Your task to perform on an android device: turn on showing notifications on the lock screen Image 0: 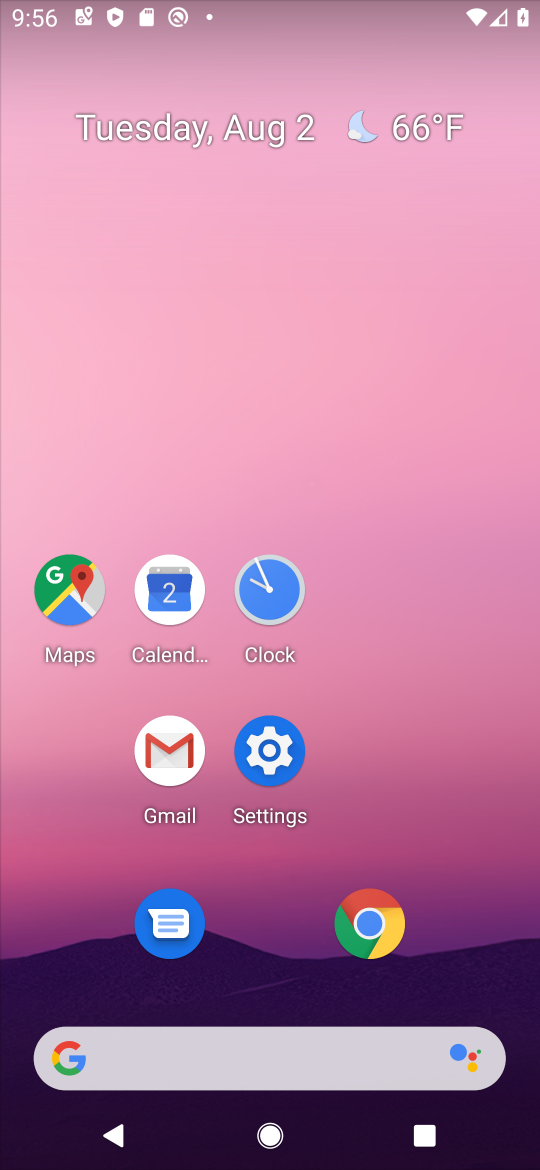
Step 0: click (253, 742)
Your task to perform on an android device: turn on showing notifications on the lock screen Image 1: 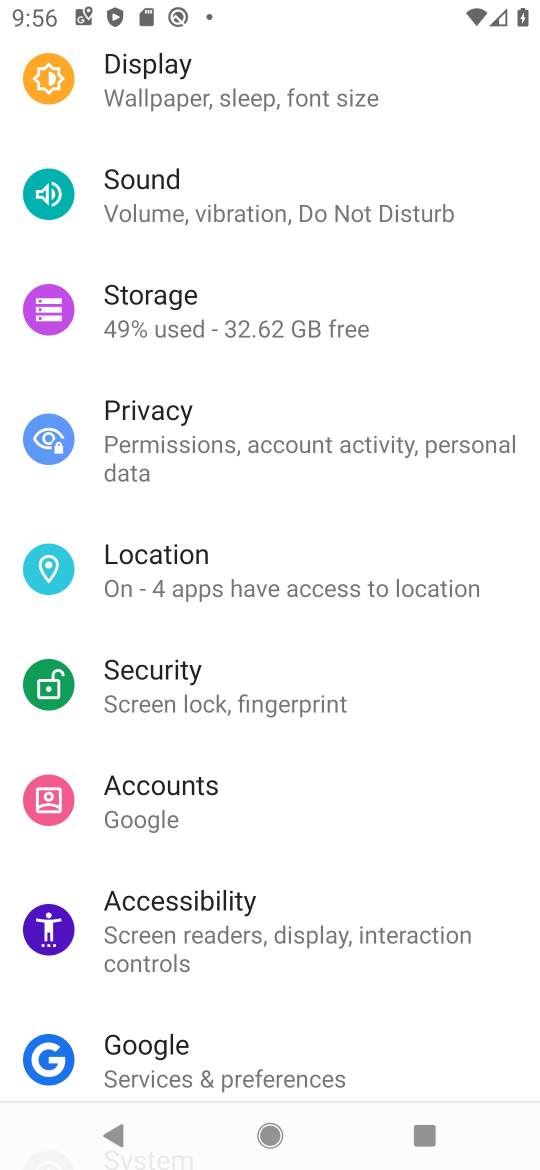
Step 1: drag from (260, 111) to (261, 623)
Your task to perform on an android device: turn on showing notifications on the lock screen Image 2: 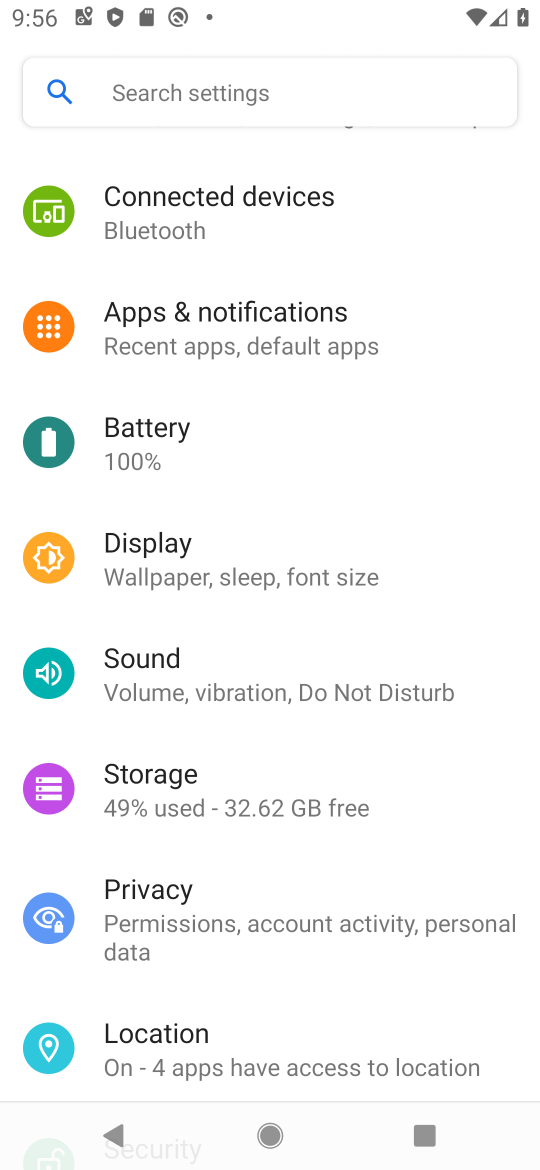
Step 2: click (272, 316)
Your task to perform on an android device: turn on showing notifications on the lock screen Image 3: 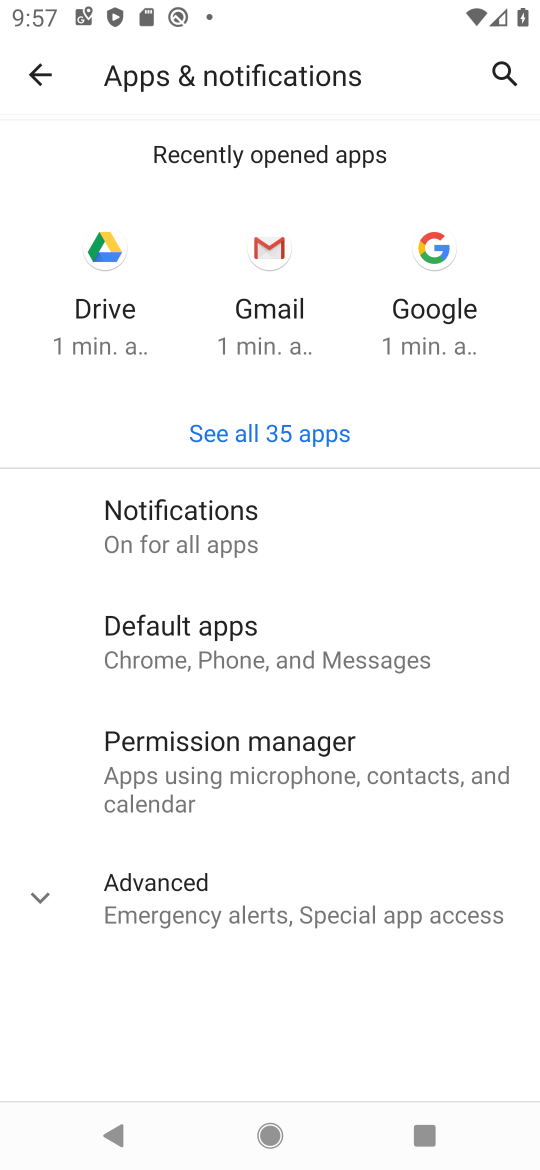
Step 3: click (37, 904)
Your task to perform on an android device: turn on showing notifications on the lock screen Image 4: 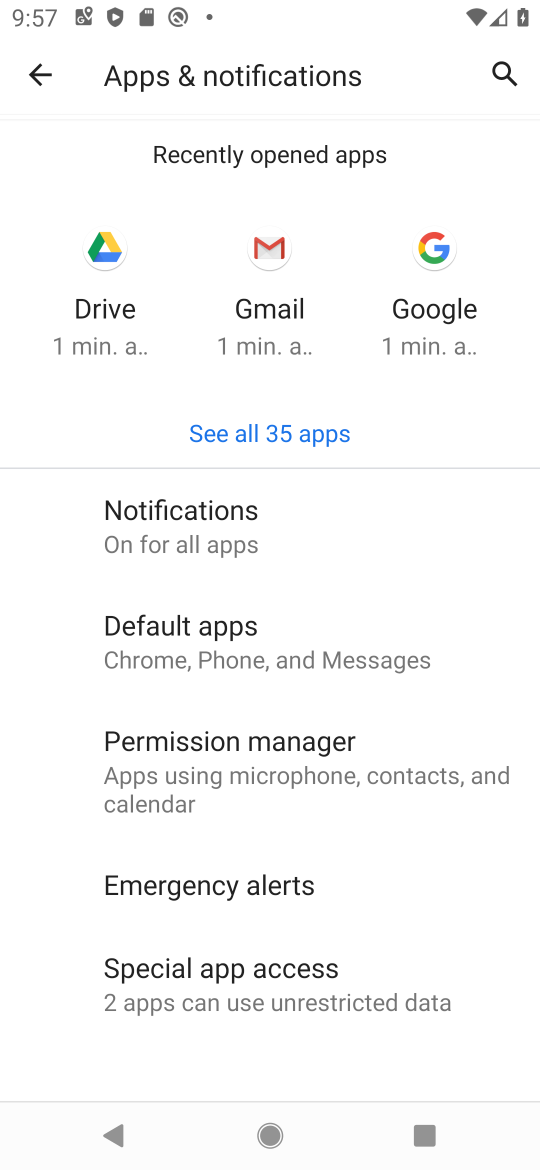
Step 4: drag from (416, 952) to (442, 535)
Your task to perform on an android device: turn on showing notifications on the lock screen Image 5: 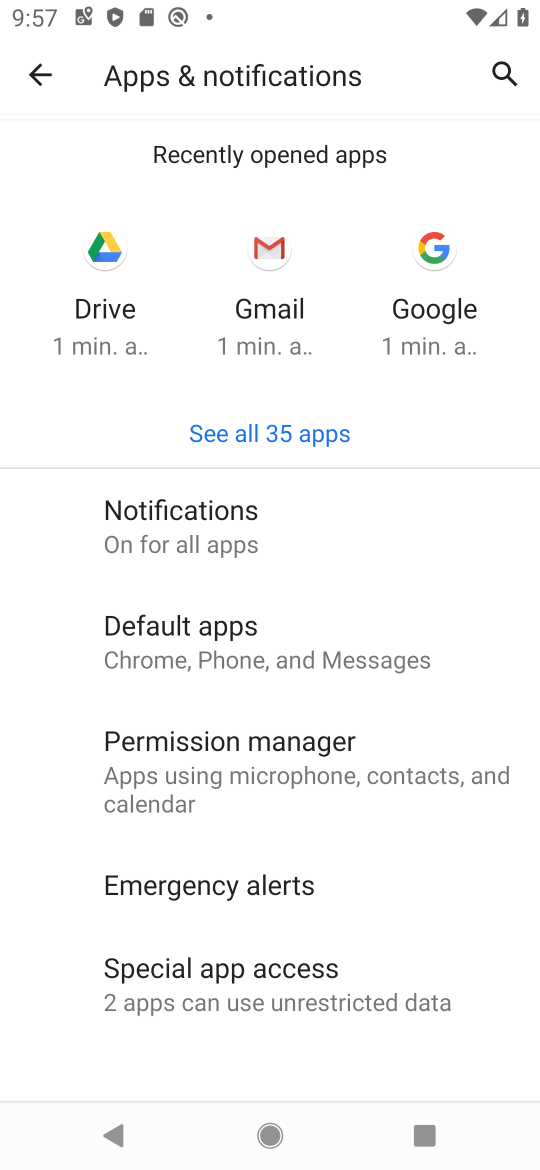
Step 5: click (200, 525)
Your task to perform on an android device: turn on showing notifications on the lock screen Image 6: 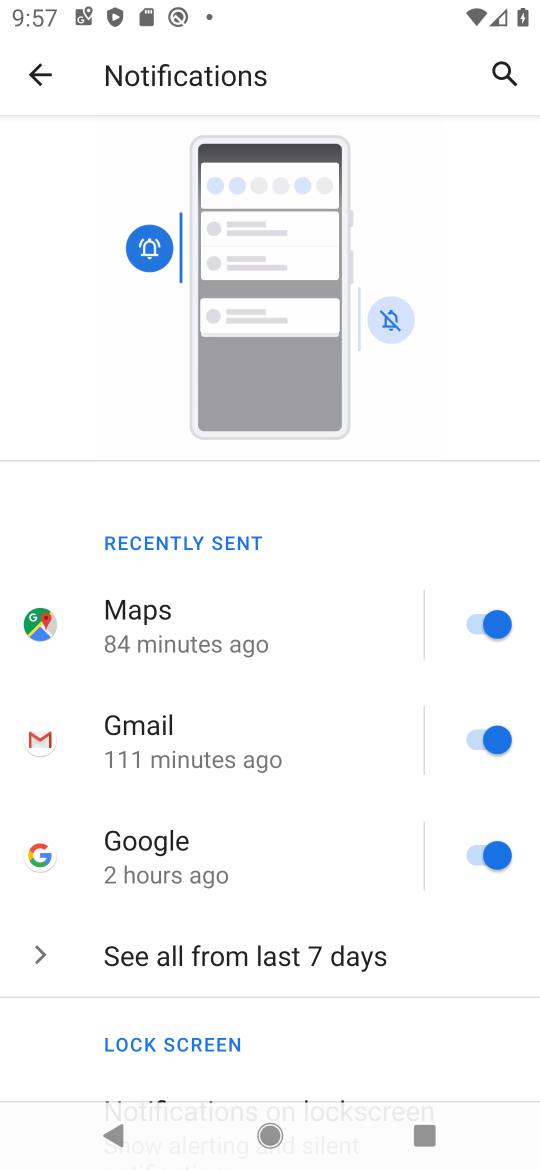
Step 6: drag from (286, 1020) to (288, 711)
Your task to perform on an android device: turn on showing notifications on the lock screen Image 7: 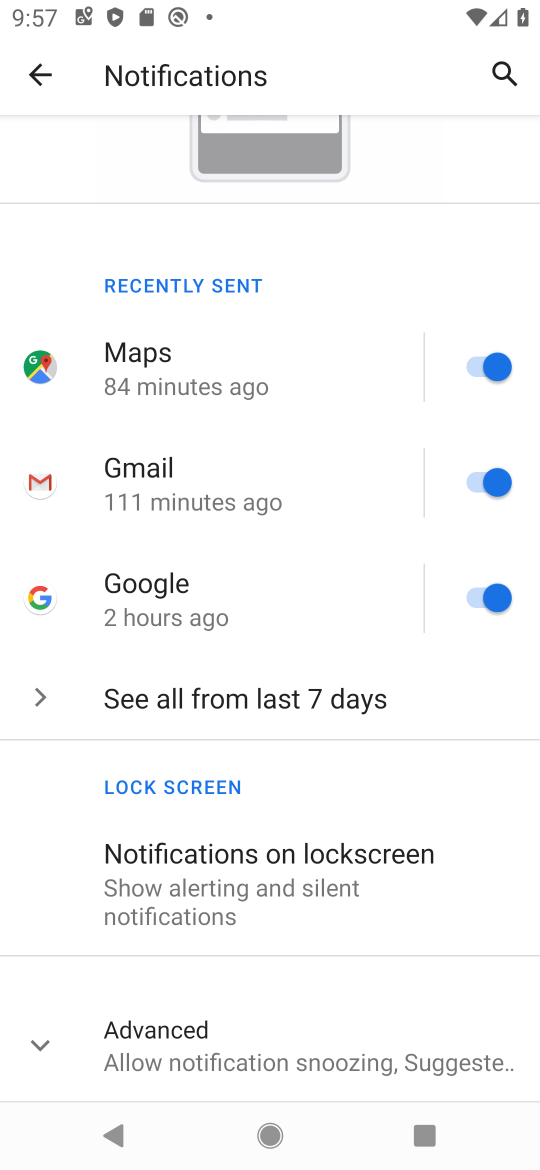
Step 7: click (170, 855)
Your task to perform on an android device: turn on showing notifications on the lock screen Image 8: 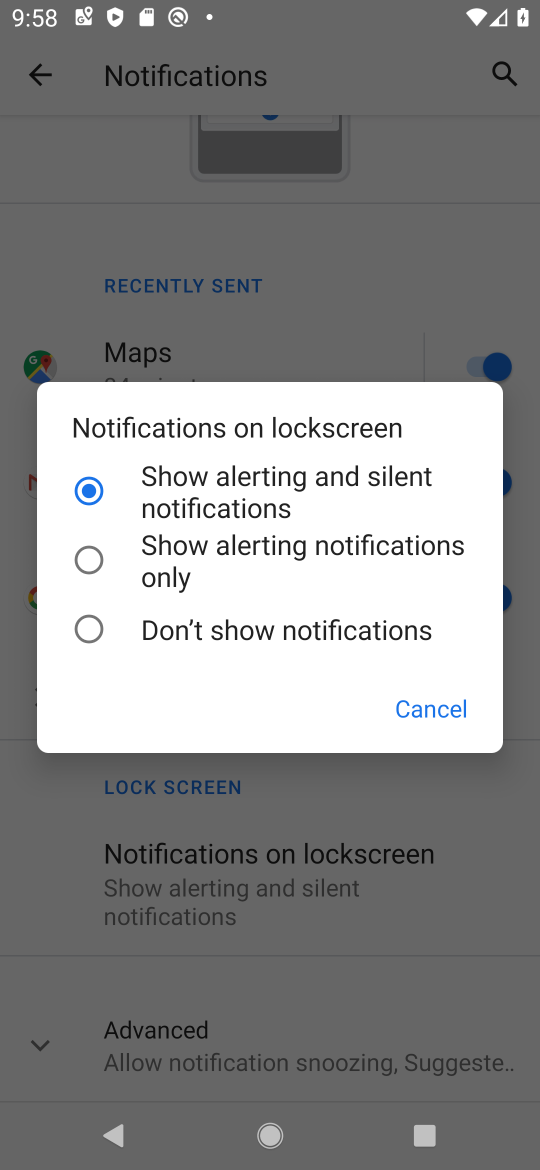
Step 8: task complete